Your task to perform on an android device: Open the web browser Image 0: 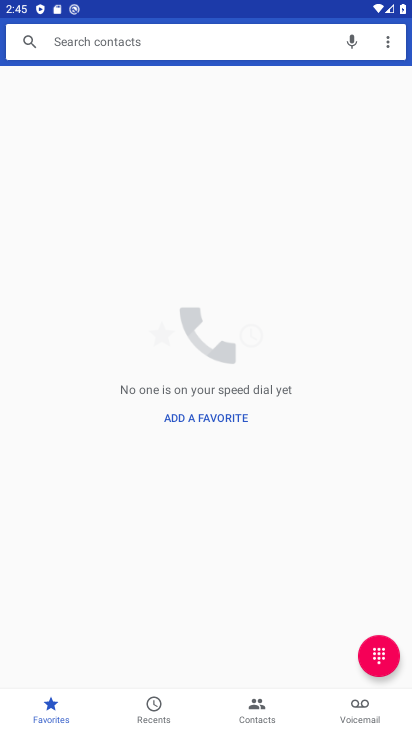
Step 0: press home button
Your task to perform on an android device: Open the web browser Image 1: 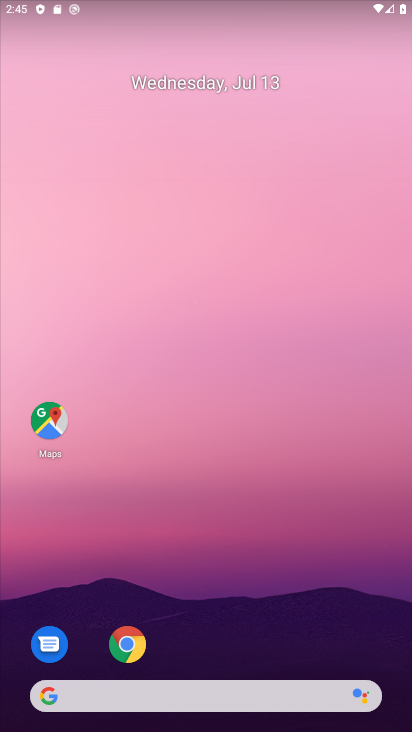
Step 1: click (126, 646)
Your task to perform on an android device: Open the web browser Image 2: 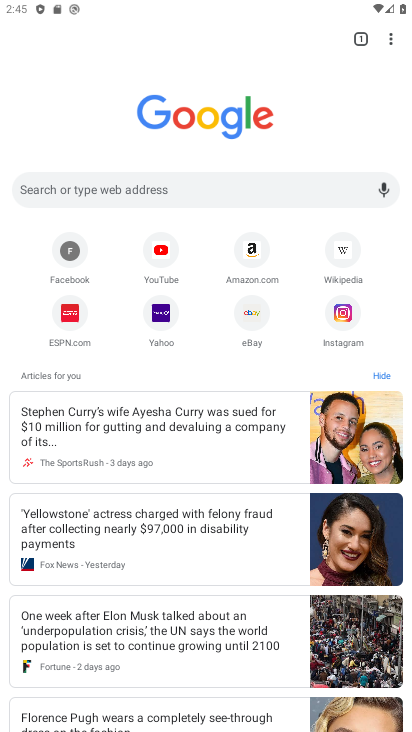
Step 2: task complete